Your task to perform on an android device: turn on translation in the chrome app Image 0: 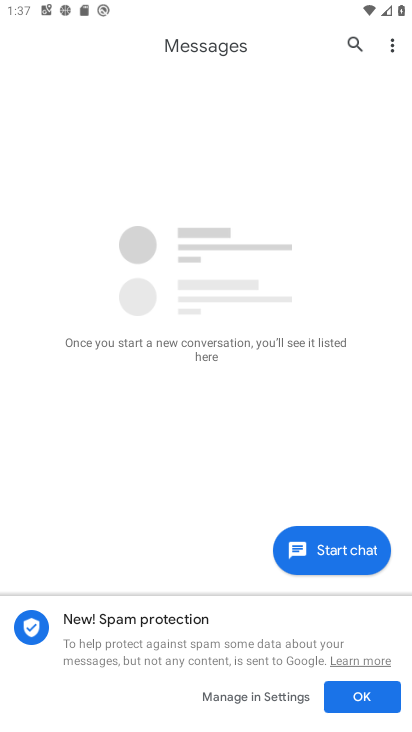
Step 0: press home button
Your task to perform on an android device: turn on translation in the chrome app Image 1: 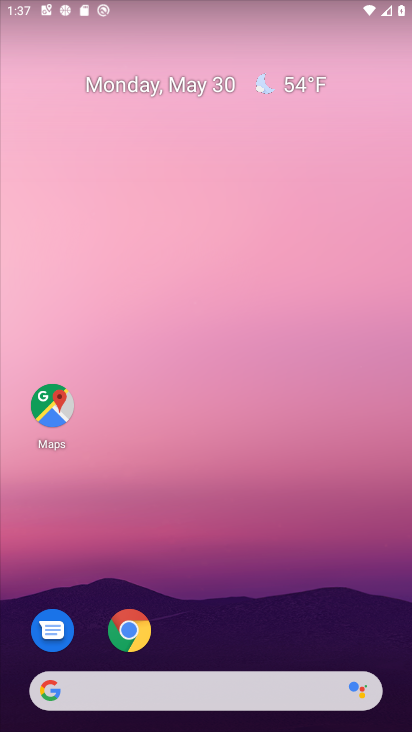
Step 1: click (125, 628)
Your task to perform on an android device: turn on translation in the chrome app Image 2: 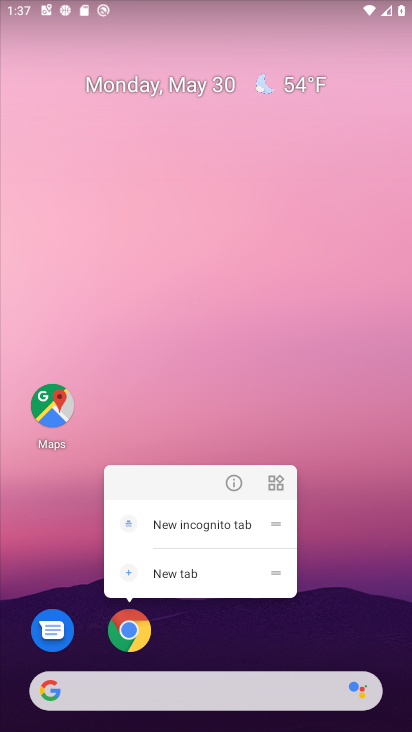
Step 2: click (134, 638)
Your task to perform on an android device: turn on translation in the chrome app Image 3: 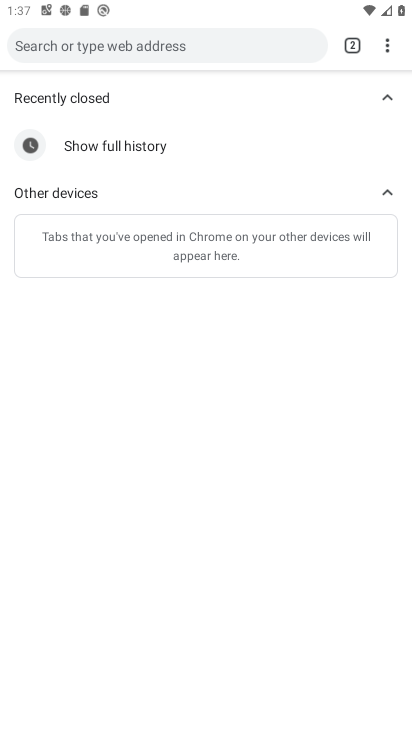
Step 3: drag from (385, 49) to (262, 386)
Your task to perform on an android device: turn on translation in the chrome app Image 4: 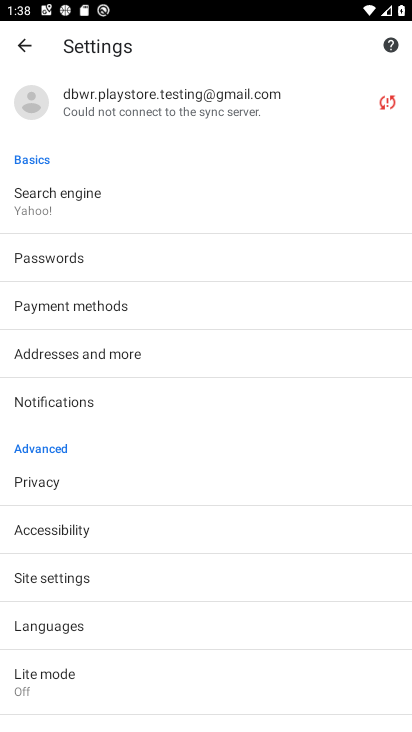
Step 4: drag from (187, 629) to (305, 423)
Your task to perform on an android device: turn on translation in the chrome app Image 5: 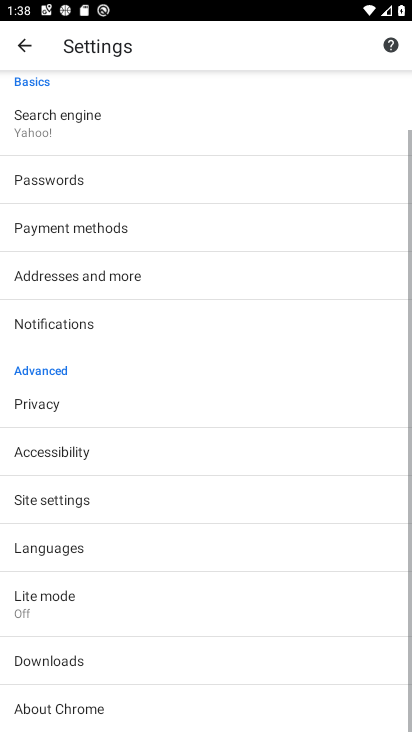
Step 5: click (71, 551)
Your task to perform on an android device: turn on translation in the chrome app Image 6: 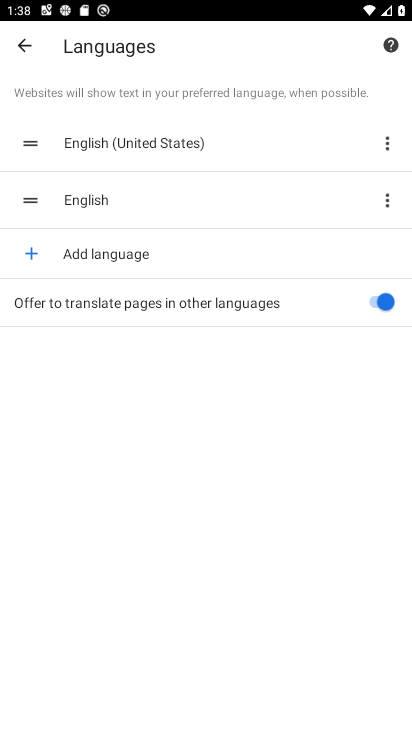
Step 6: task complete